Your task to perform on an android device: Open Yahoo.com Image 0: 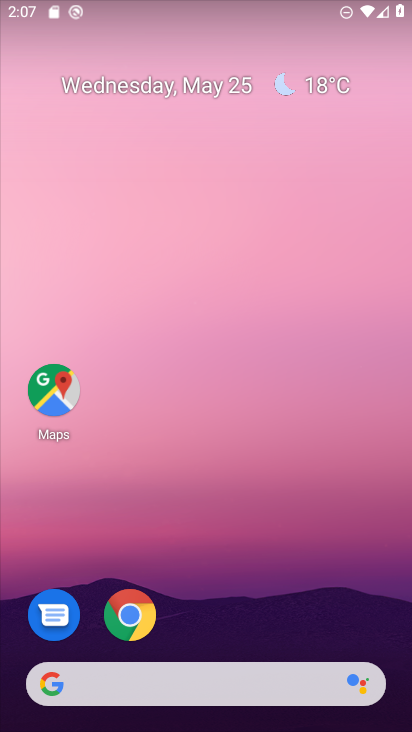
Step 0: click (228, 691)
Your task to perform on an android device: Open Yahoo.com Image 1: 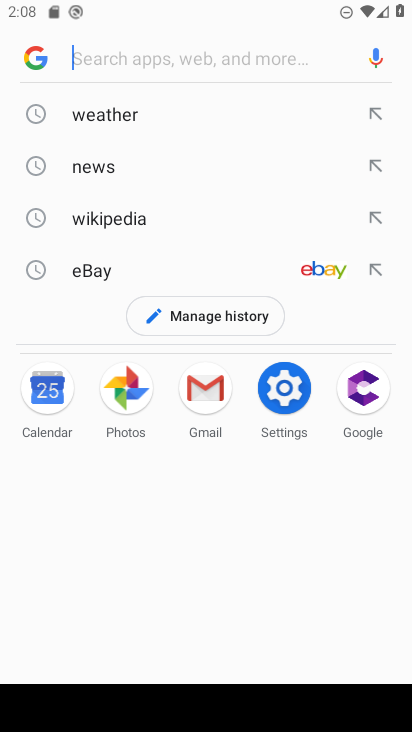
Step 1: type "yahoo.com"
Your task to perform on an android device: Open Yahoo.com Image 2: 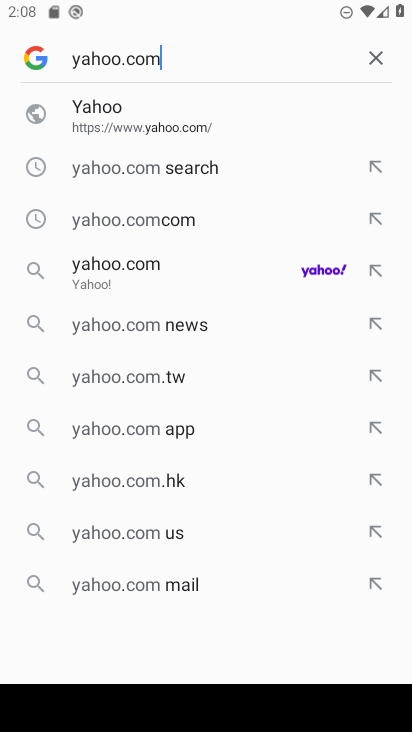
Step 2: click (142, 270)
Your task to perform on an android device: Open Yahoo.com Image 3: 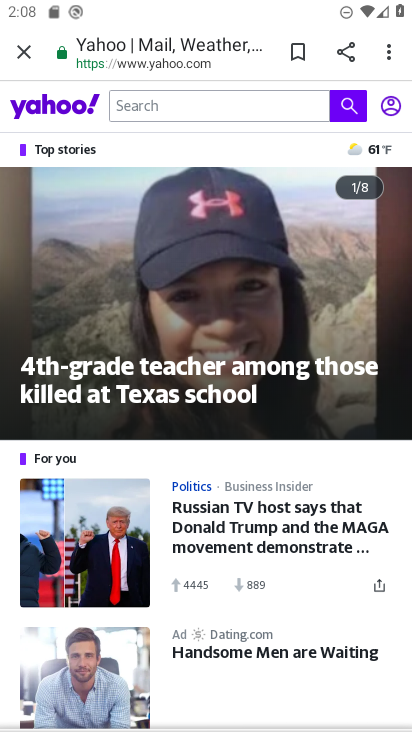
Step 3: task complete